Your task to perform on an android device: Show the shopping cart on ebay. Image 0: 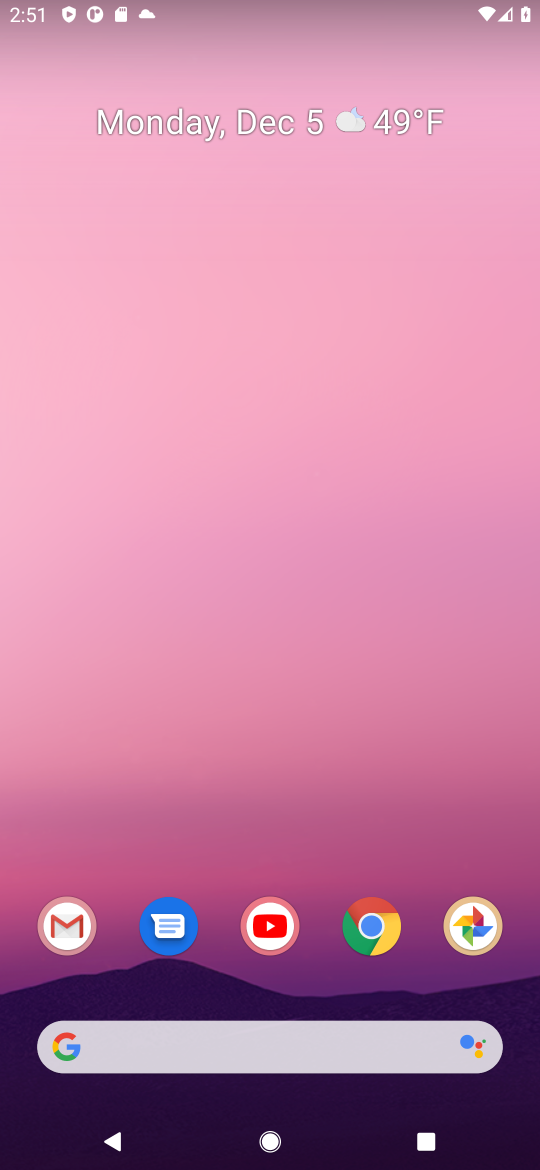
Step 0: click (384, 931)
Your task to perform on an android device: Show the shopping cart on ebay. Image 1: 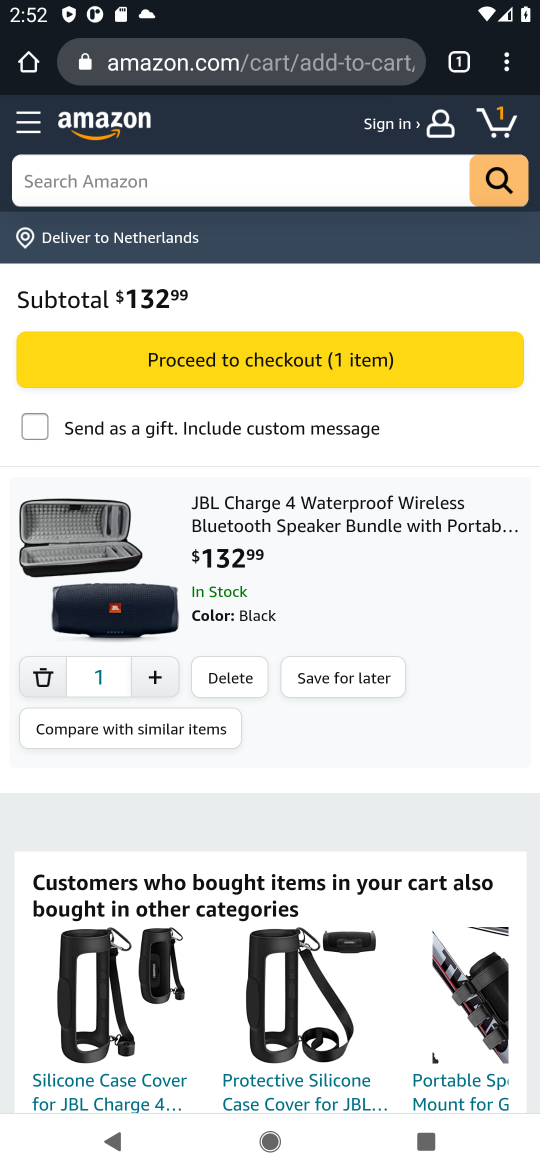
Step 1: click (320, 70)
Your task to perform on an android device: Show the shopping cart on ebay. Image 2: 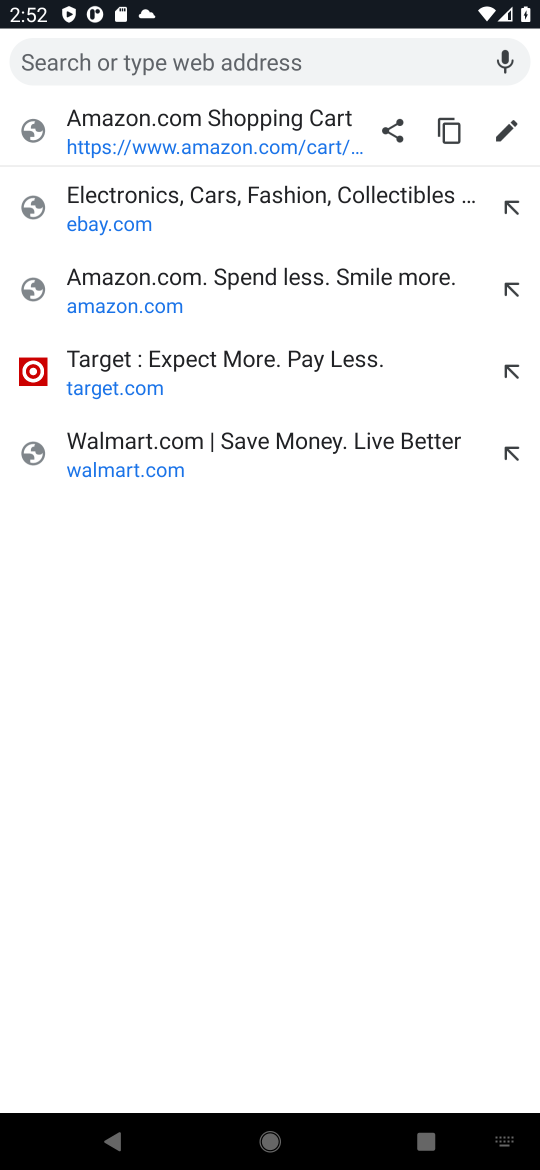
Step 2: click (287, 179)
Your task to perform on an android device: Show the shopping cart on ebay. Image 3: 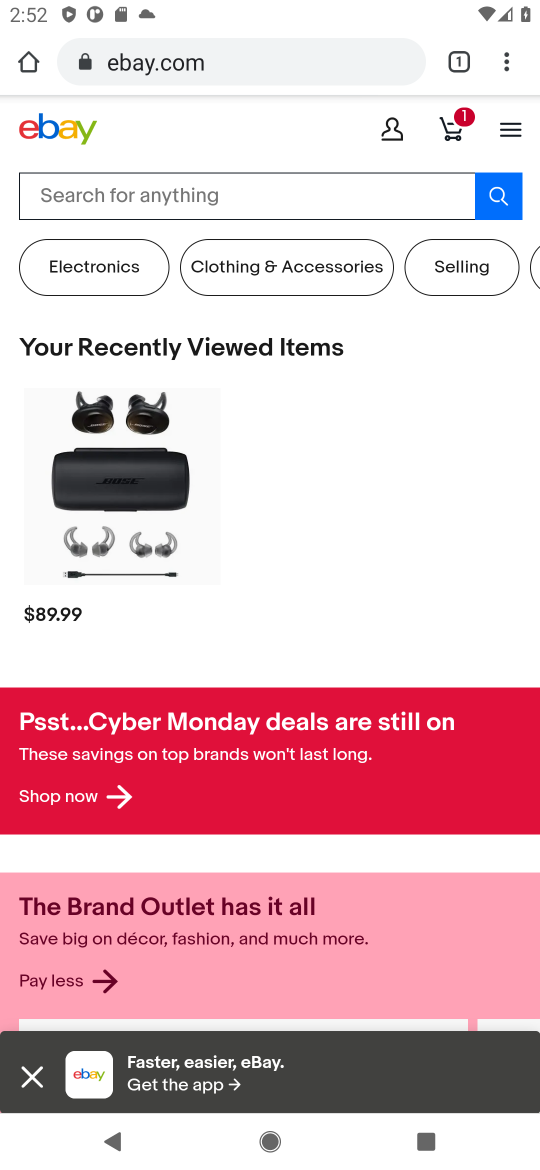
Step 3: drag from (468, 577) to (486, 213)
Your task to perform on an android device: Show the shopping cart on ebay. Image 4: 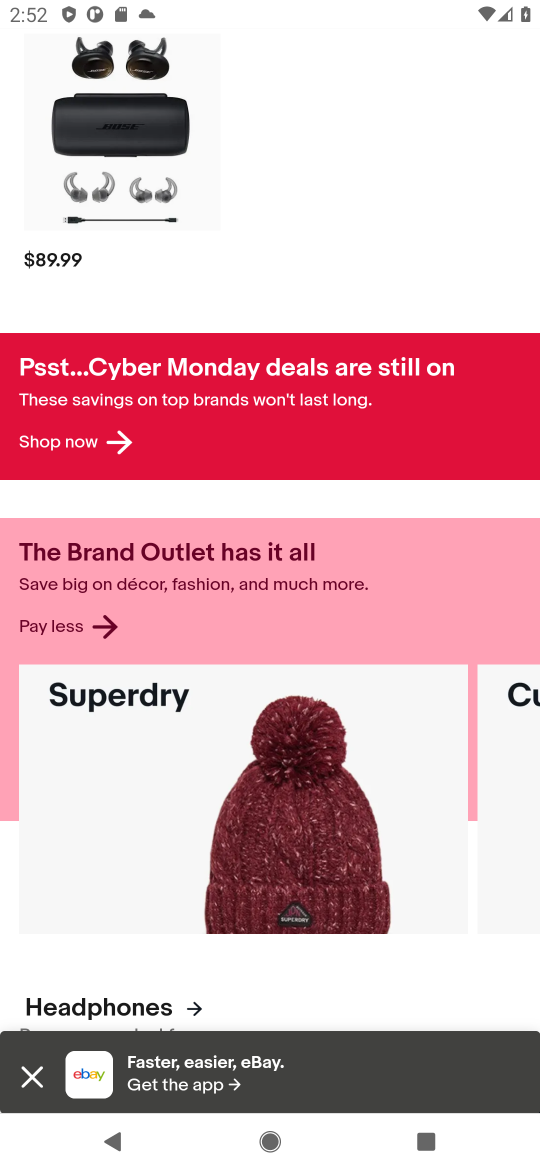
Step 4: drag from (478, 236) to (439, 692)
Your task to perform on an android device: Show the shopping cart on ebay. Image 5: 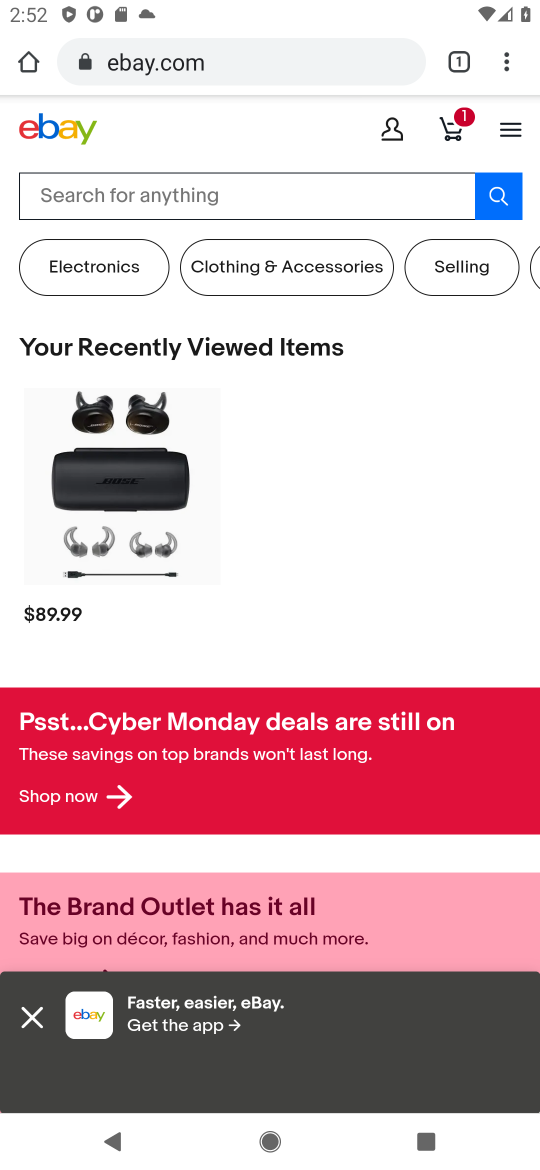
Step 5: click (445, 127)
Your task to perform on an android device: Show the shopping cart on ebay. Image 6: 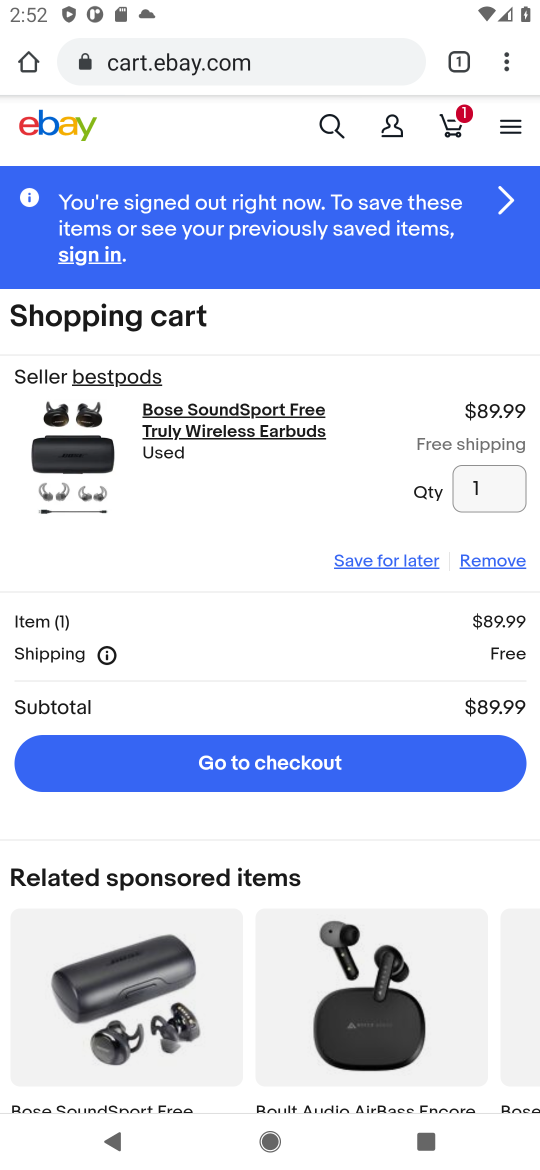
Step 6: click (491, 559)
Your task to perform on an android device: Show the shopping cart on ebay. Image 7: 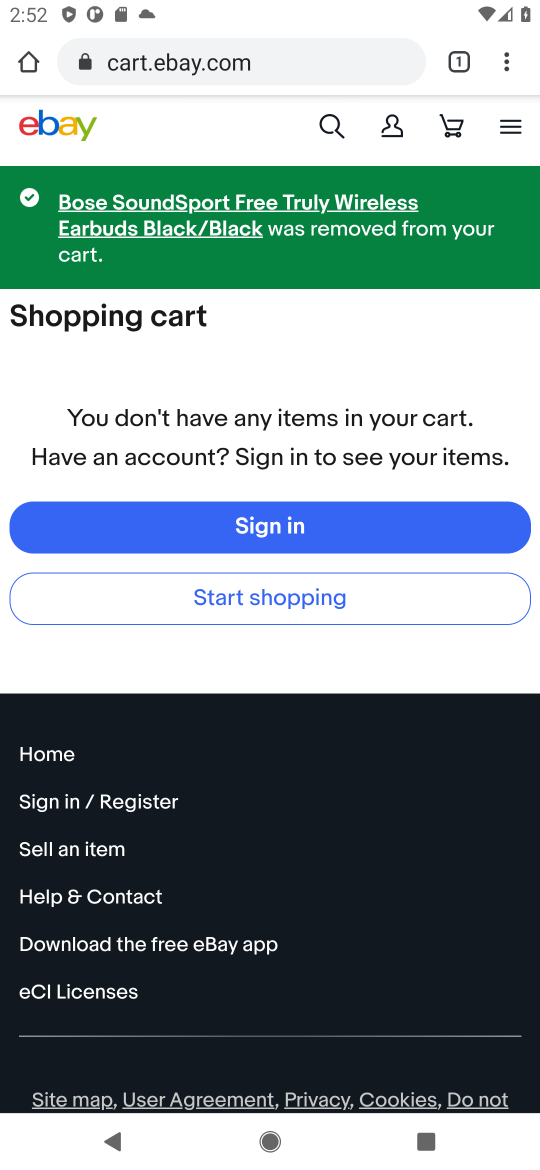
Step 7: task complete